Your task to perform on an android device: turn on improve location accuracy Image 0: 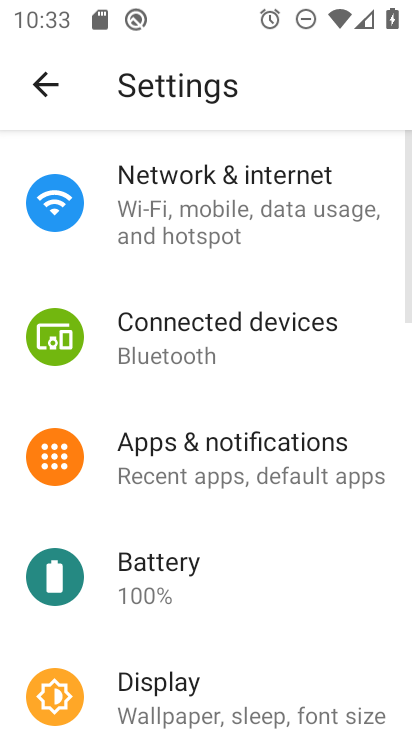
Step 0: press home button
Your task to perform on an android device: turn on improve location accuracy Image 1: 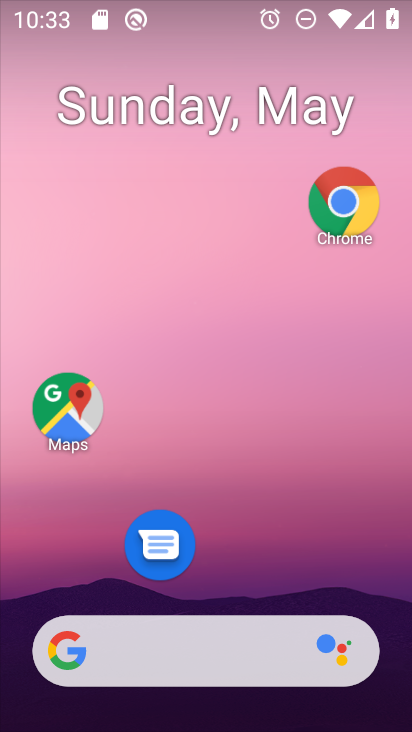
Step 1: drag from (279, 567) to (244, 67)
Your task to perform on an android device: turn on improve location accuracy Image 2: 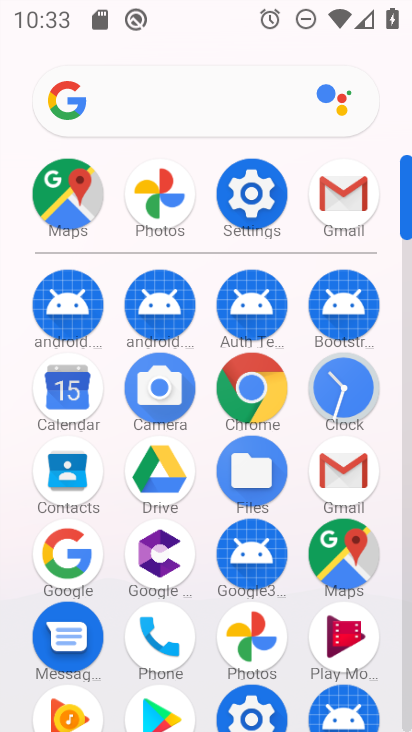
Step 2: click (245, 191)
Your task to perform on an android device: turn on improve location accuracy Image 3: 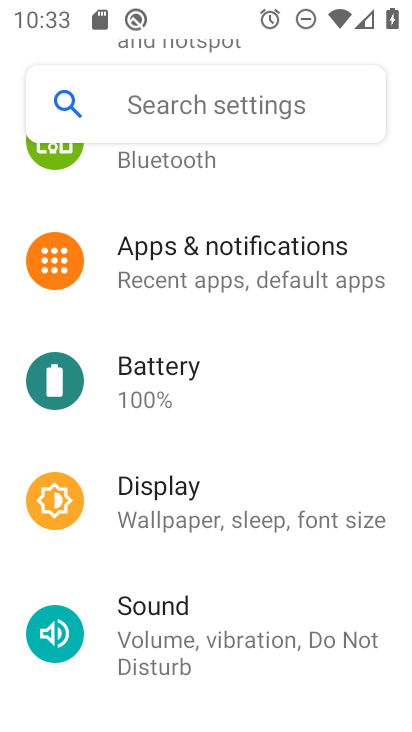
Step 3: drag from (235, 550) to (236, 337)
Your task to perform on an android device: turn on improve location accuracy Image 4: 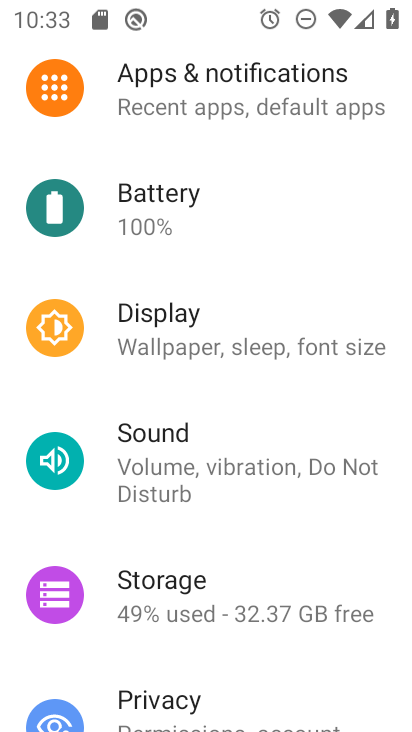
Step 4: drag from (218, 518) to (153, 237)
Your task to perform on an android device: turn on improve location accuracy Image 5: 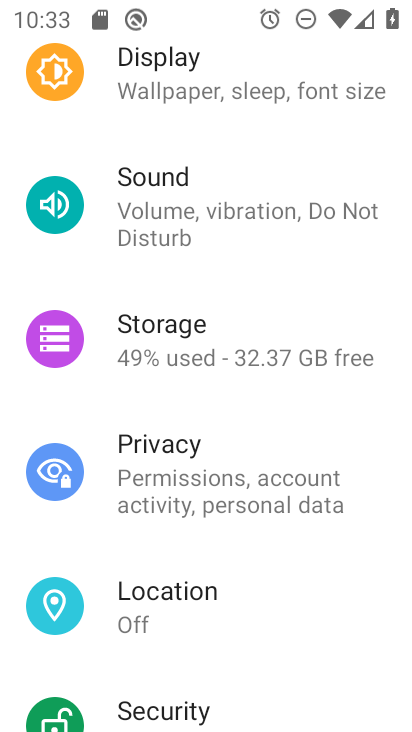
Step 5: click (178, 599)
Your task to perform on an android device: turn on improve location accuracy Image 6: 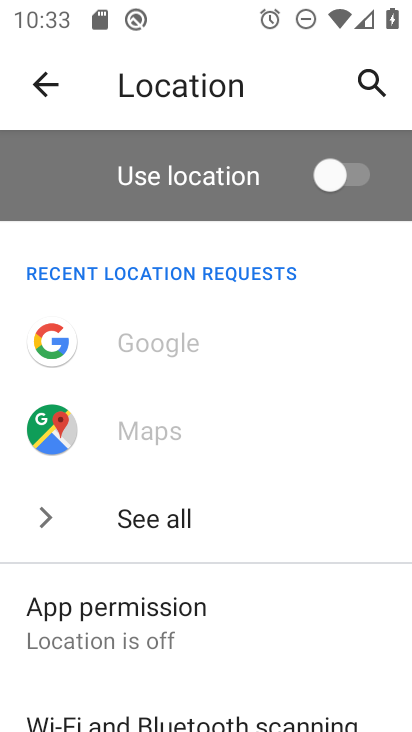
Step 6: drag from (224, 544) to (206, 247)
Your task to perform on an android device: turn on improve location accuracy Image 7: 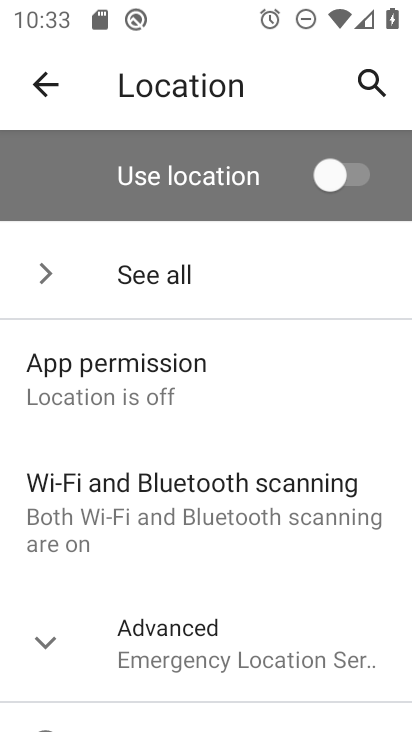
Step 7: click (148, 633)
Your task to perform on an android device: turn on improve location accuracy Image 8: 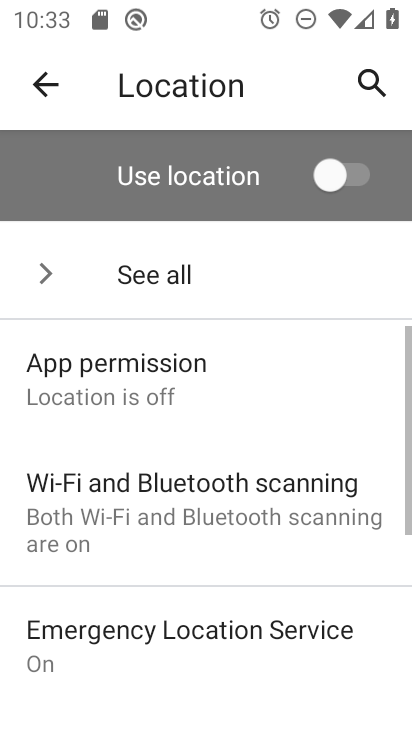
Step 8: drag from (139, 609) to (109, 322)
Your task to perform on an android device: turn on improve location accuracy Image 9: 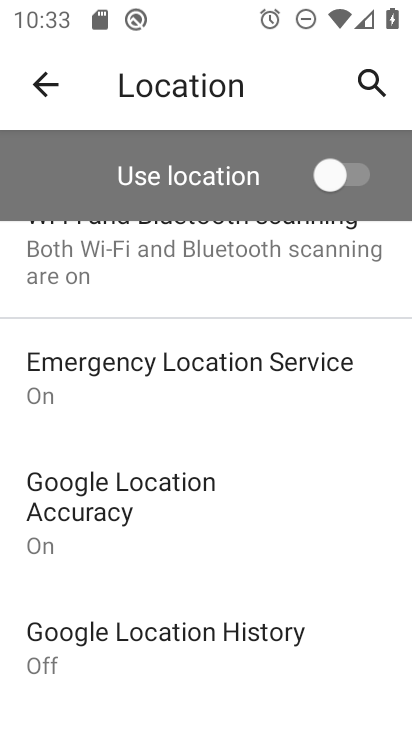
Step 9: click (110, 543)
Your task to perform on an android device: turn on improve location accuracy Image 10: 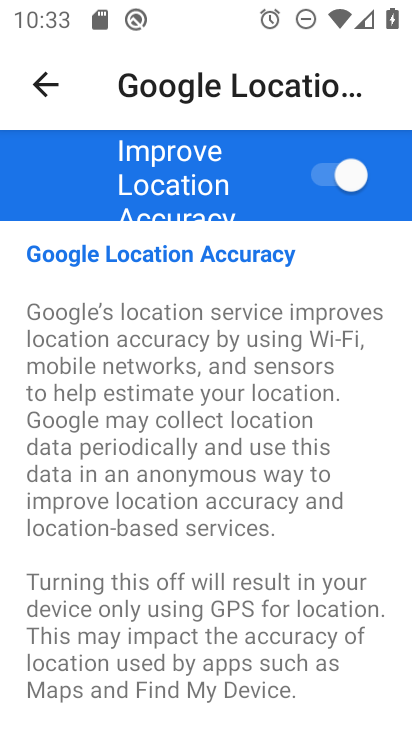
Step 10: task complete